Your task to perform on an android device: Show me recent news Image 0: 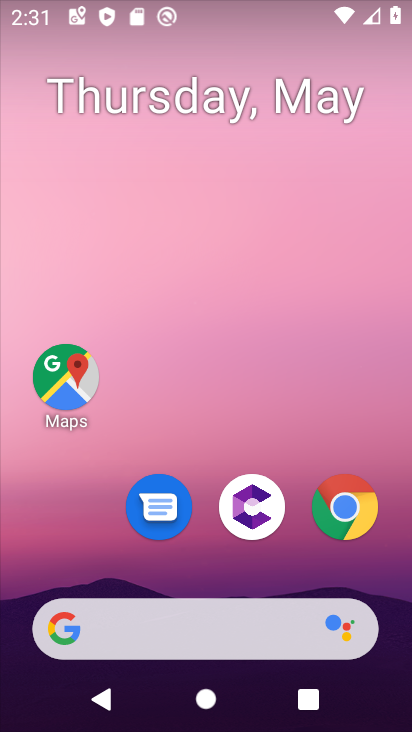
Step 0: press home button
Your task to perform on an android device: Show me recent news Image 1: 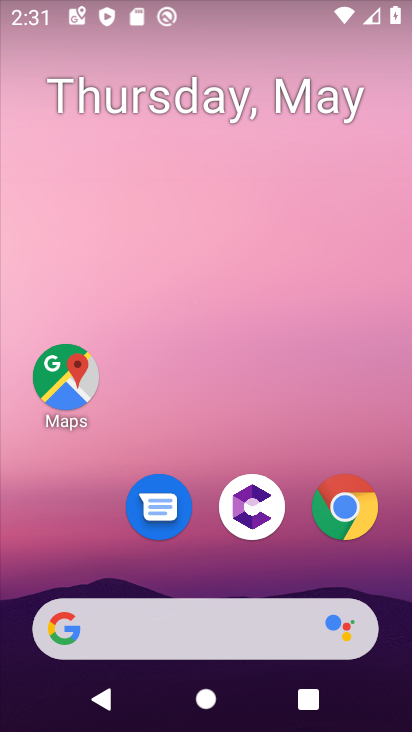
Step 1: click (53, 629)
Your task to perform on an android device: Show me recent news Image 2: 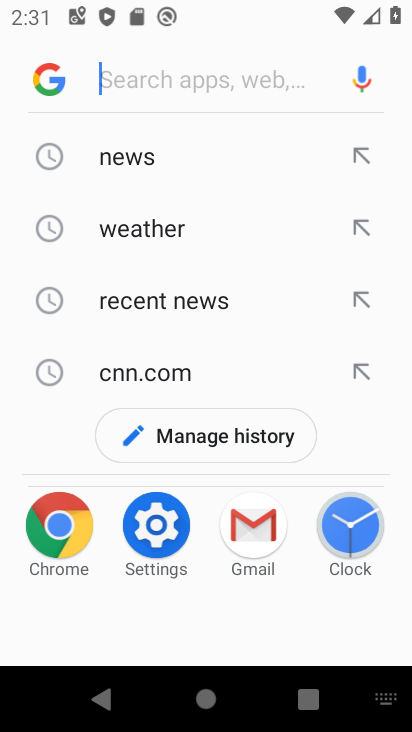
Step 2: click (169, 307)
Your task to perform on an android device: Show me recent news Image 3: 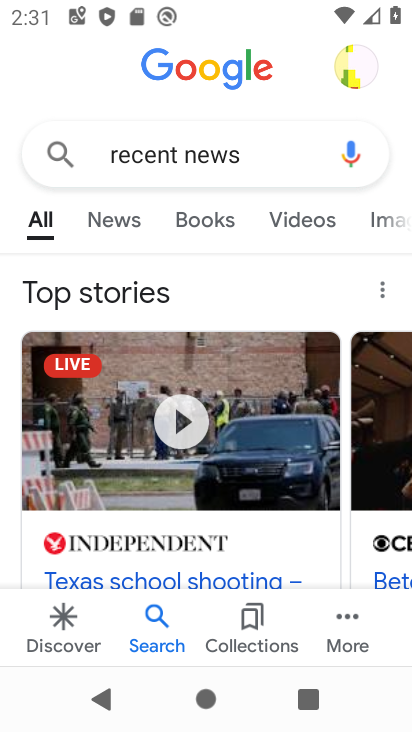
Step 3: task complete